Your task to perform on an android device: Go to Android settings Image 0: 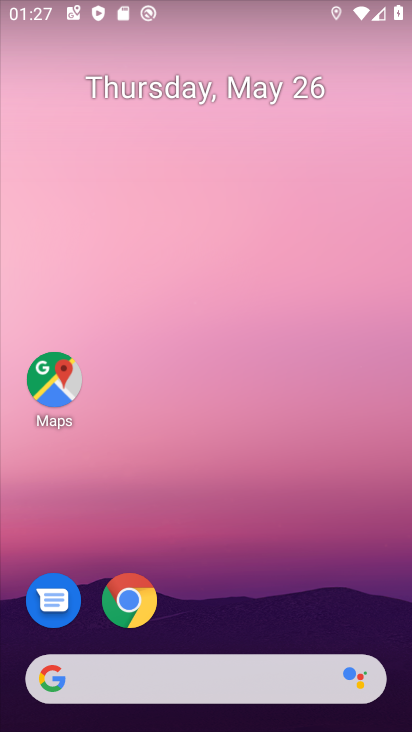
Step 0: drag from (292, 528) to (222, 115)
Your task to perform on an android device: Go to Android settings Image 1: 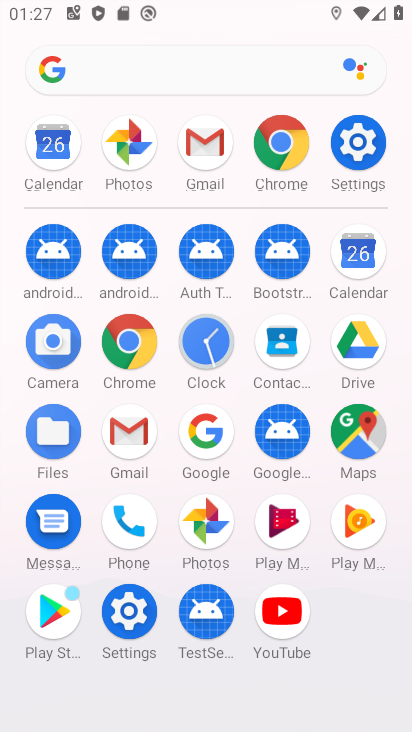
Step 1: click (355, 155)
Your task to perform on an android device: Go to Android settings Image 2: 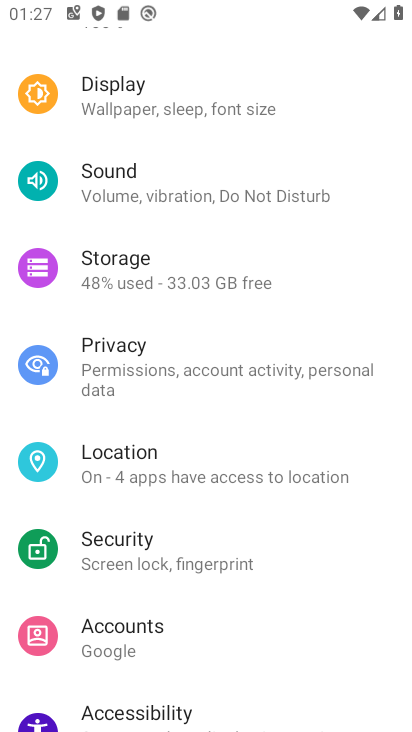
Step 2: task complete